Your task to perform on an android device: read, delete, or share a saved page in the chrome app Image 0: 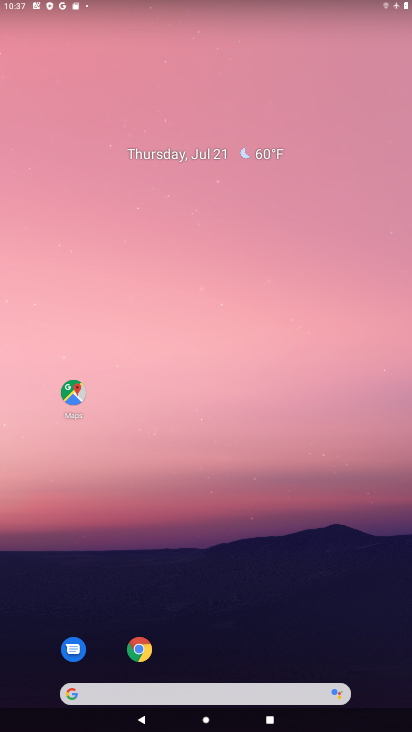
Step 0: click (142, 648)
Your task to perform on an android device: read, delete, or share a saved page in the chrome app Image 1: 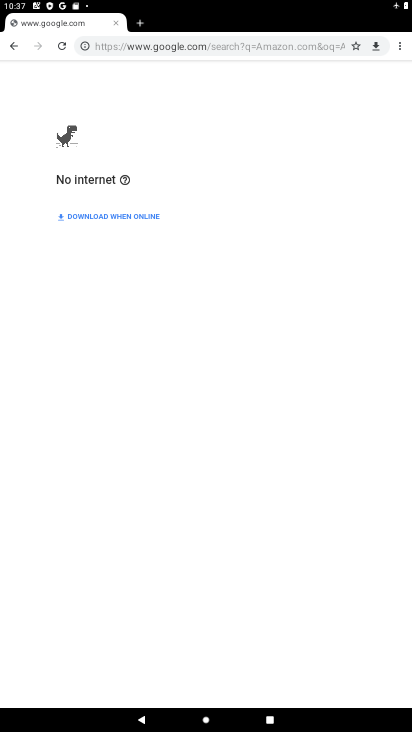
Step 1: click (393, 40)
Your task to perform on an android device: read, delete, or share a saved page in the chrome app Image 2: 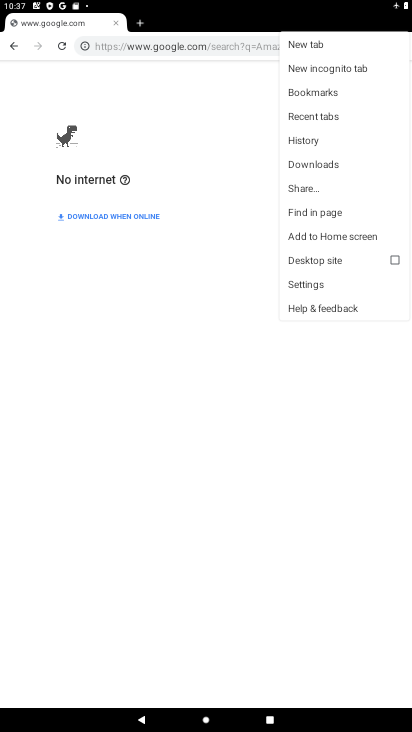
Step 2: click (325, 164)
Your task to perform on an android device: read, delete, or share a saved page in the chrome app Image 3: 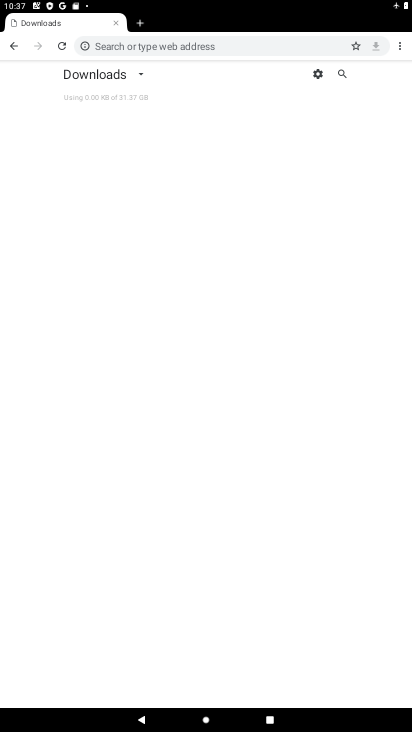
Step 3: click (140, 74)
Your task to perform on an android device: read, delete, or share a saved page in the chrome app Image 4: 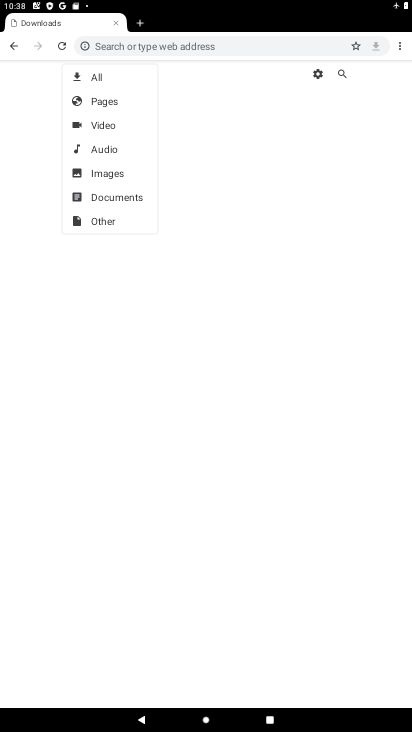
Step 4: click (101, 223)
Your task to perform on an android device: read, delete, or share a saved page in the chrome app Image 5: 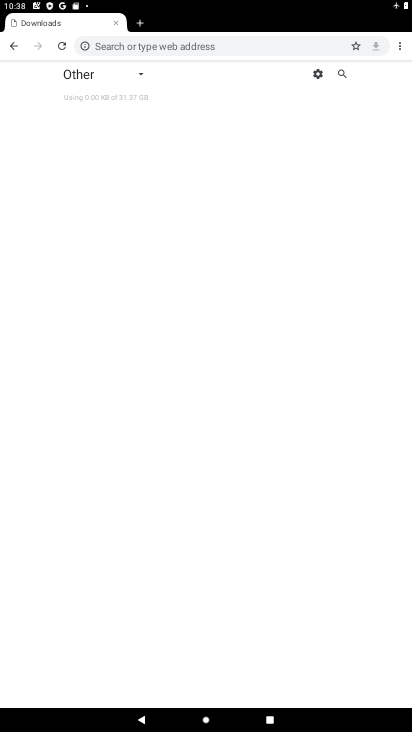
Step 5: click (141, 70)
Your task to perform on an android device: read, delete, or share a saved page in the chrome app Image 6: 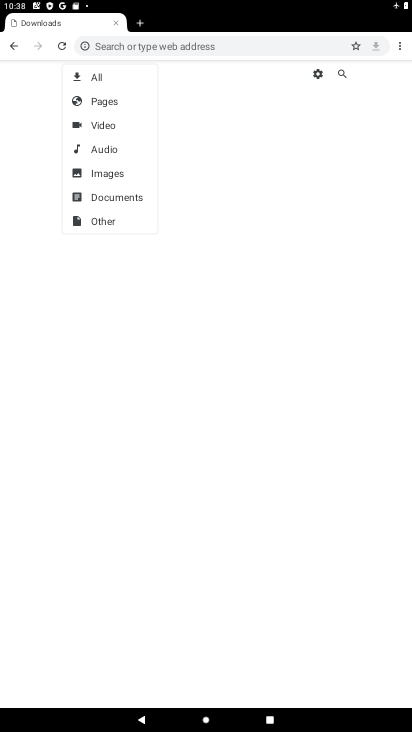
Step 6: click (117, 195)
Your task to perform on an android device: read, delete, or share a saved page in the chrome app Image 7: 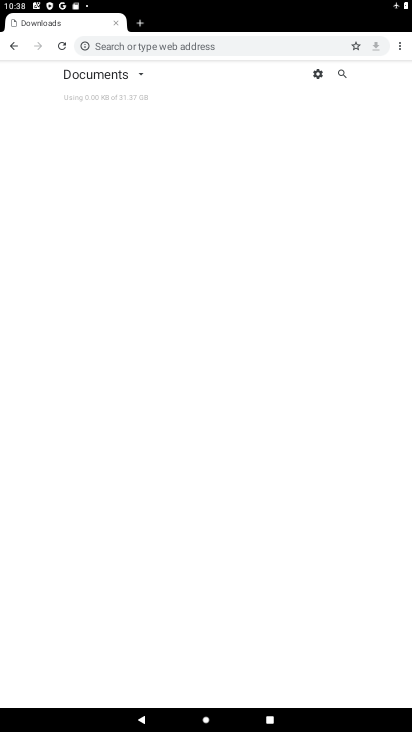
Step 7: click (129, 75)
Your task to perform on an android device: read, delete, or share a saved page in the chrome app Image 8: 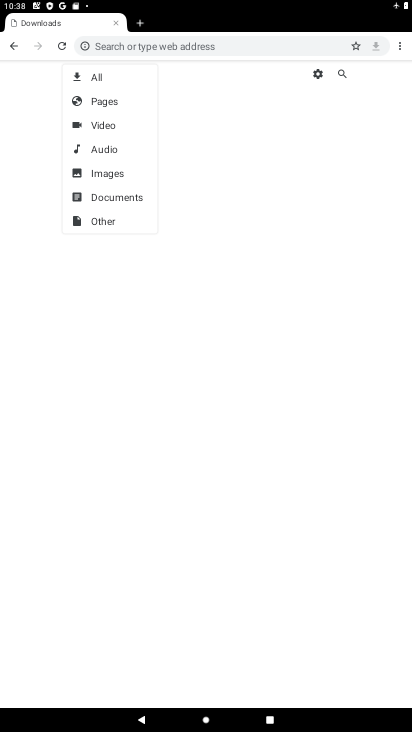
Step 8: click (112, 146)
Your task to perform on an android device: read, delete, or share a saved page in the chrome app Image 9: 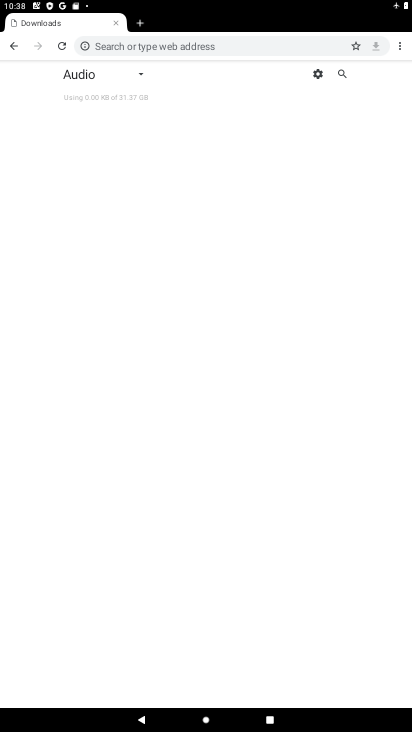
Step 9: task complete